Your task to perform on an android device: Go to Google Image 0: 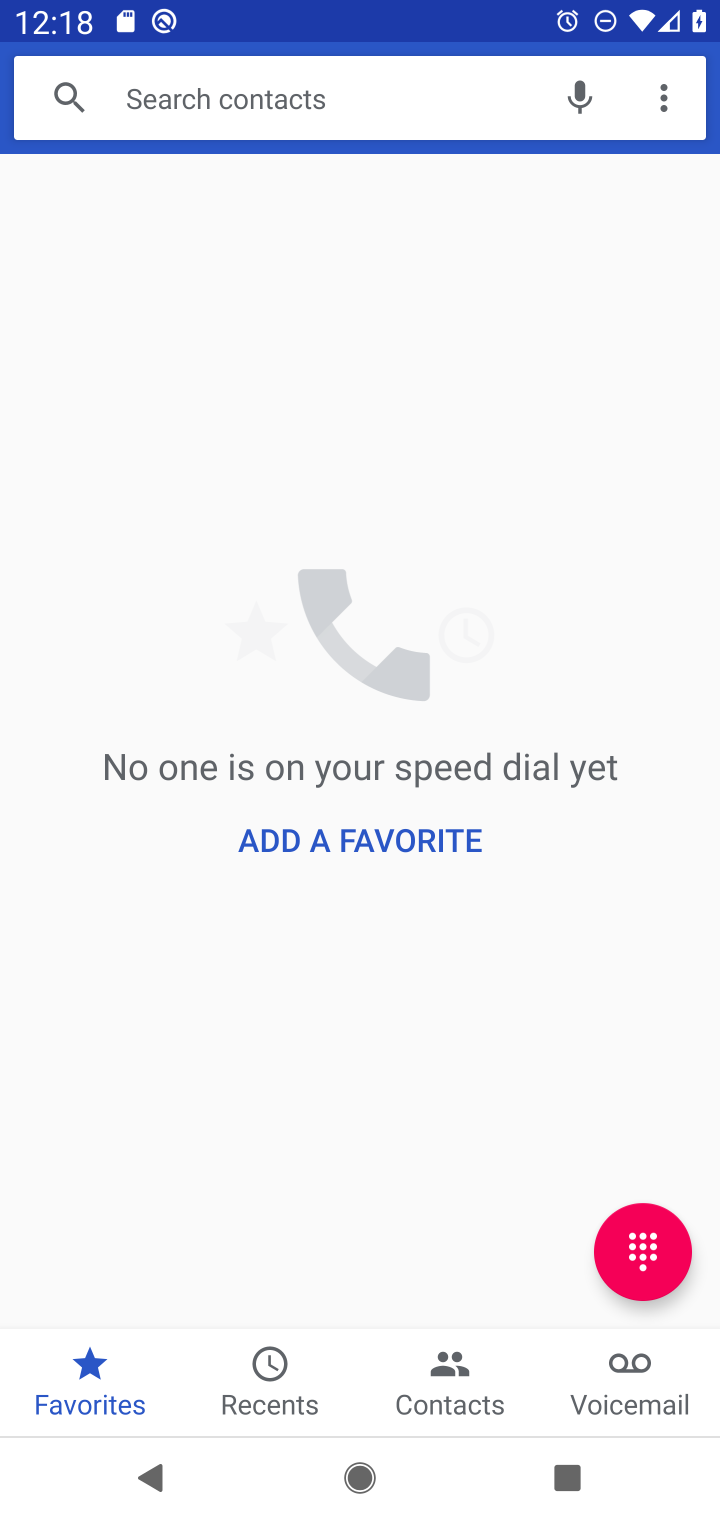
Step 0: press home button
Your task to perform on an android device: Go to Google Image 1: 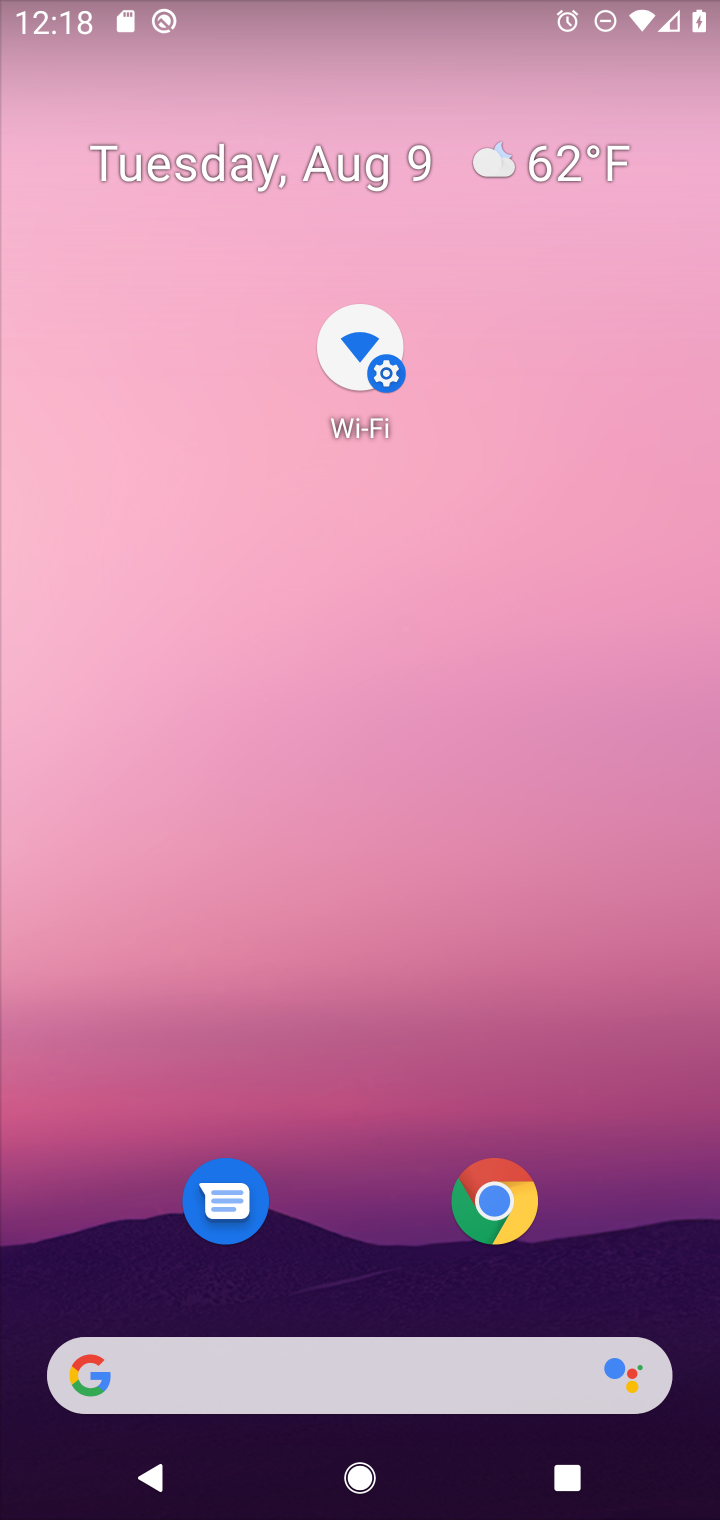
Step 1: drag from (356, 1214) to (519, 257)
Your task to perform on an android device: Go to Google Image 2: 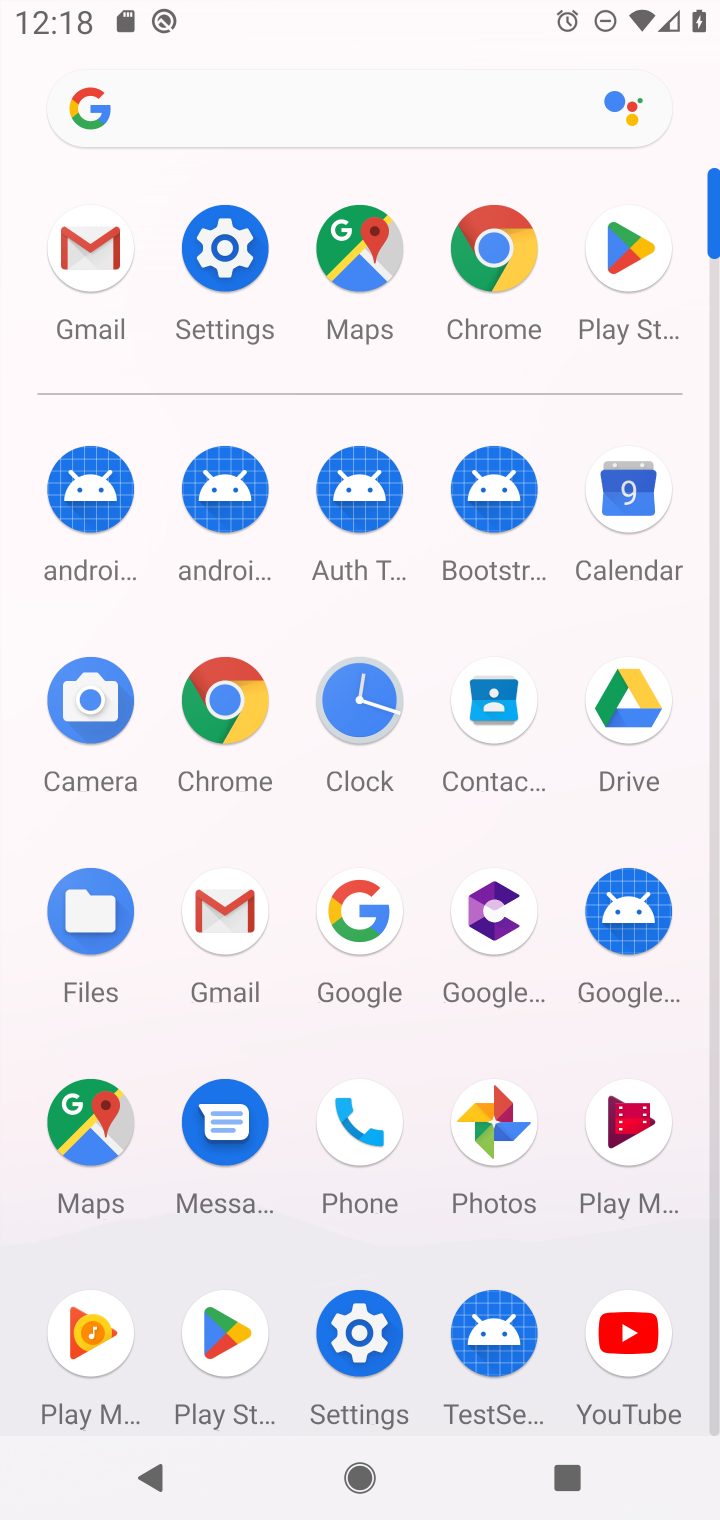
Step 2: click (358, 907)
Your task to perform on an android device: Go to Google Image 3: 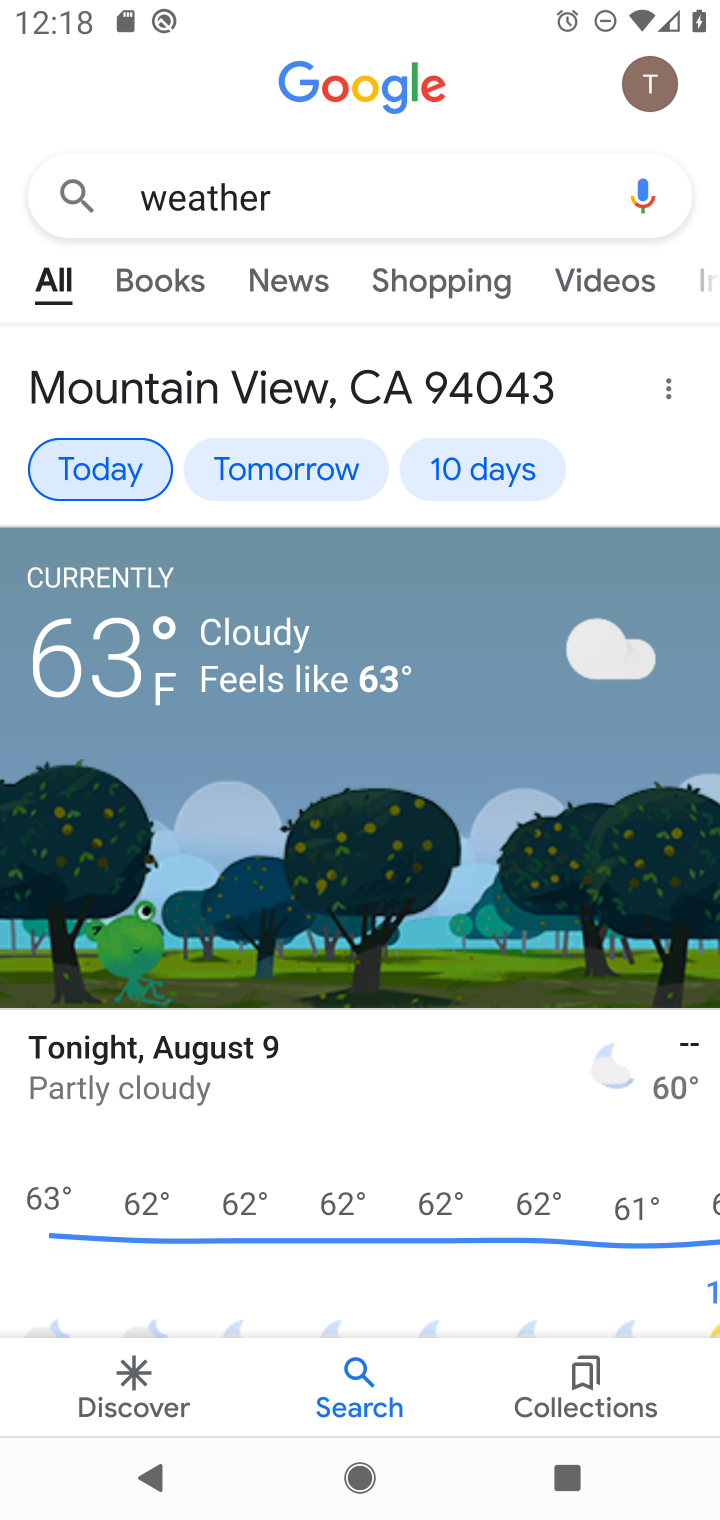
Step 3: task complete